Your task to perform on an android device: see sites visited before in the chrome app Image 0: 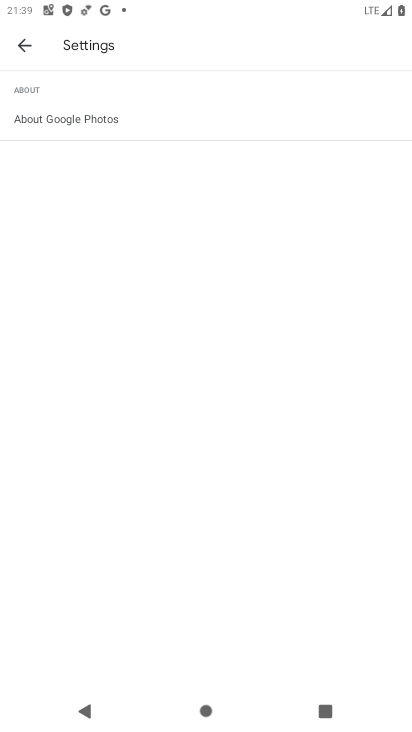
Step 0: press home button
Your task to perform on an android device: see sites visited before in the chrome app Image 1: 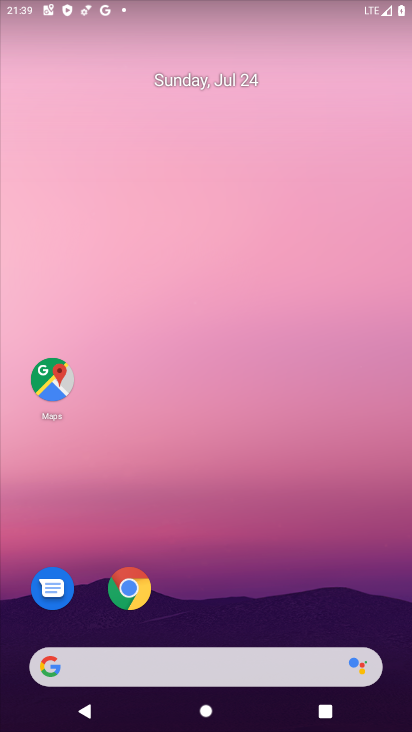
Step 1: click (133, 602)
Your task to perform on an android device: see sites visited before in the chrome app Image 2: 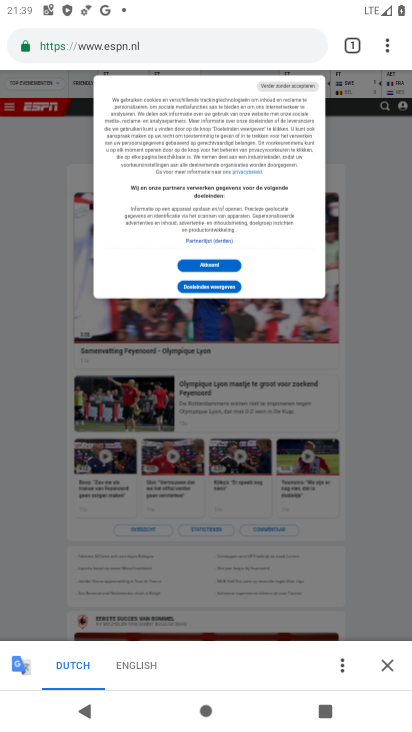
Step 2: task complete